Your task to perform on an android device: check out phone information Image 0: 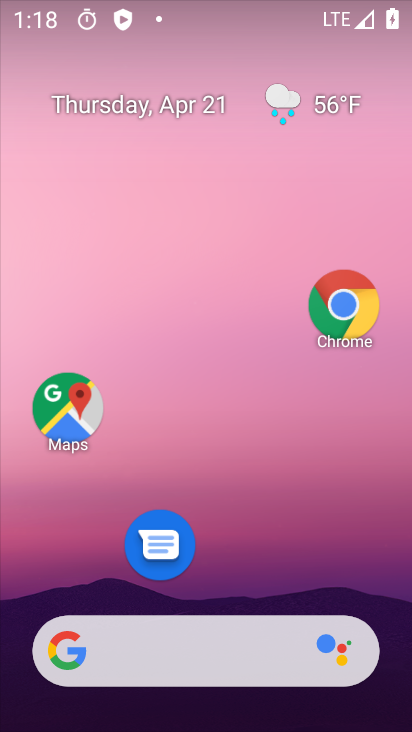
Step 0: drag from (156, 663) to (292, 74)
Your task to perform on an android device: check out phone information Image 1: 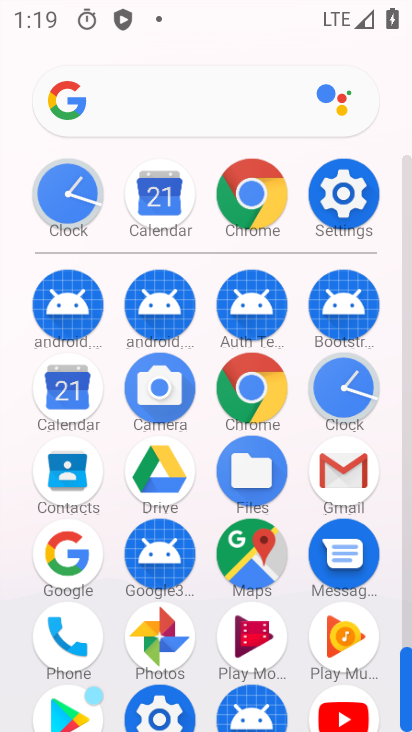
Step 1: click (356, 197)
Your task to perform on an android device: check out phone information Image 2: 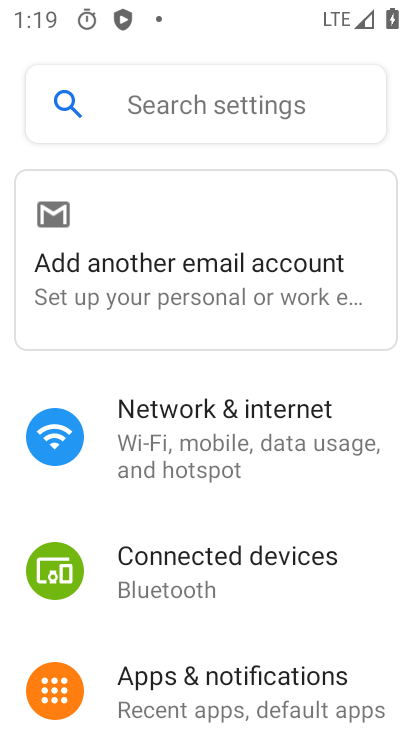
Step 2: drag from (237, 640) to (360, 253)
Your task to perform on an android device: check out phone information Image 3: 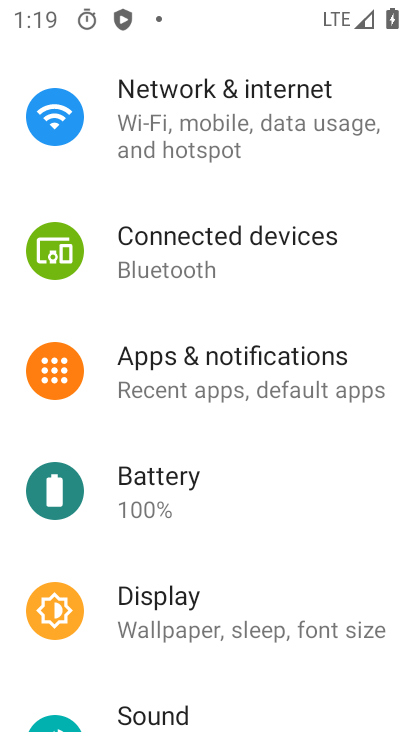
Step 3: drag from (252, 554) to (330, 246)
Your task to perform on an android device: check out phone information Image 4: 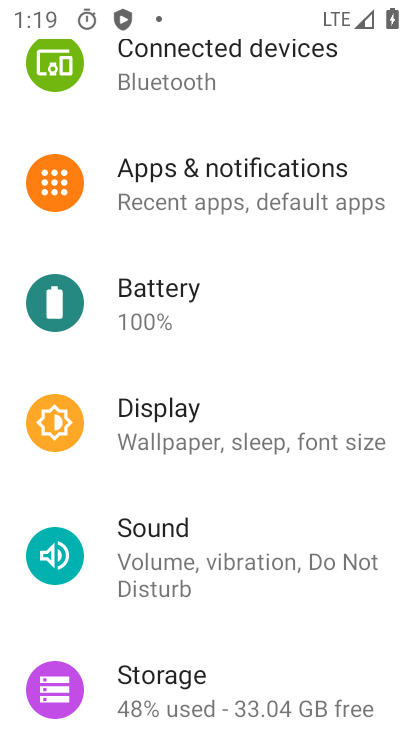
Step 4: drag from (252, 642) to (330, 45)
Your task to perform on an android device: check out phone information Image 5: 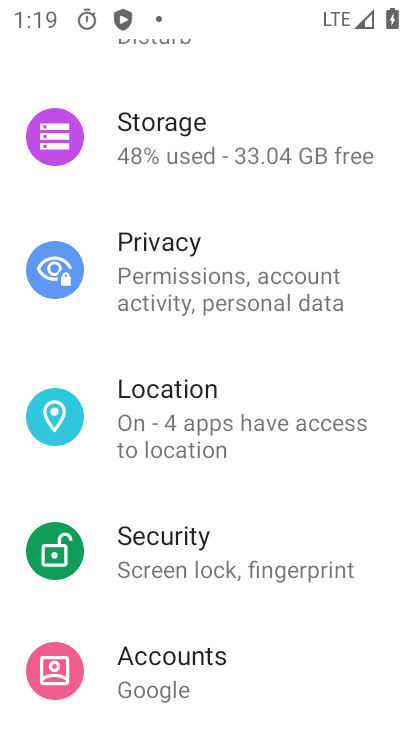
Step 5: drag from (249, 648) to (309, 141)
Your task to perform on an android device: check out phone information Image 6: 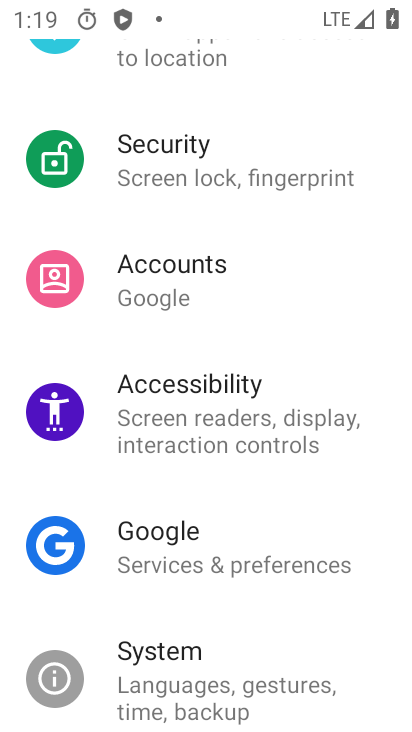
Step 6: drag from (238, 619) to (336, 95)
Your task to perform on an android device: check out phone information Image 7: 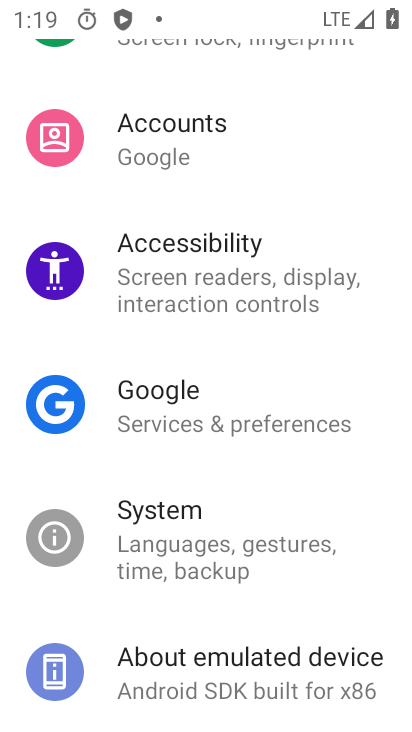
Step 7: click (229, 664)
Your task to perform on an android device: check out phone information Image 8: 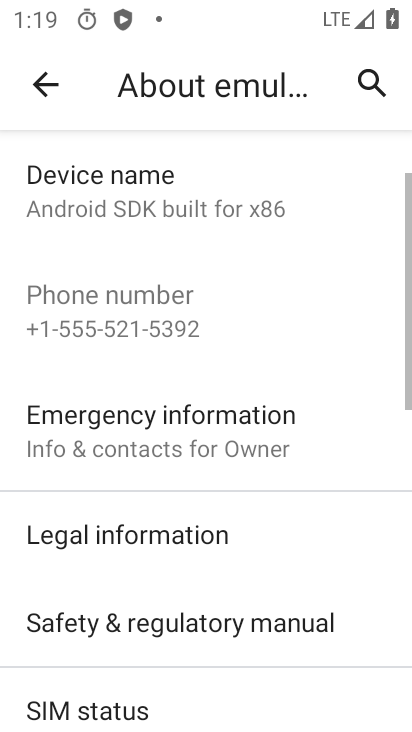
Step 8: task complete